Your task to perform on an android device: show emergency info Image 0: 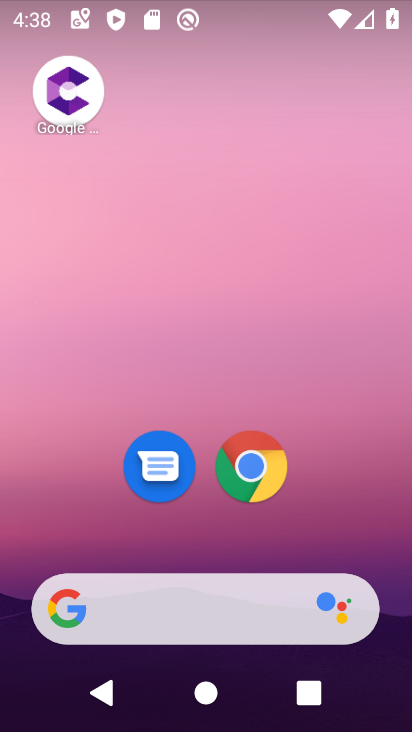
Step 0: drag from (403, 611) to (334, 116)
Your task to perform on an android device: show emergency info Image 1: 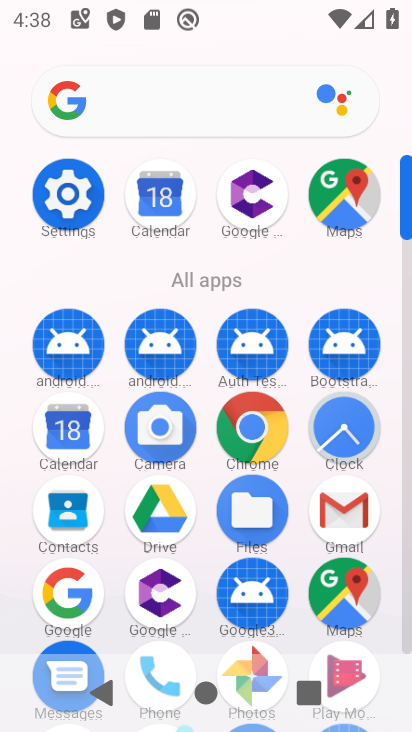
Step 1: click (407, 640)
Your task to perform on an android device: show emergency info Image 2: 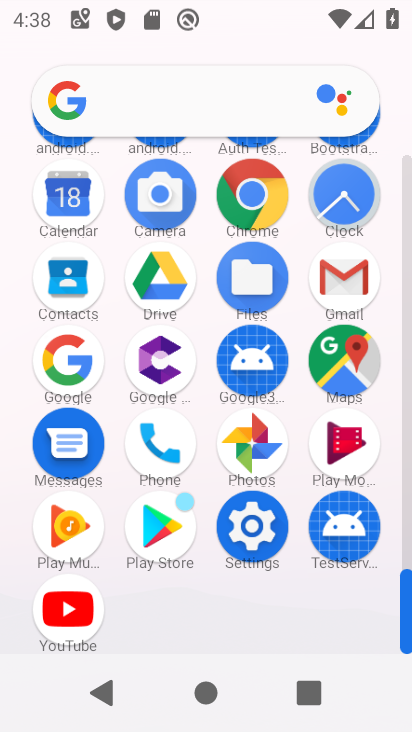
Step 2: click (252, 526)
Your task to perform on an android device: show emergency info Image 3: 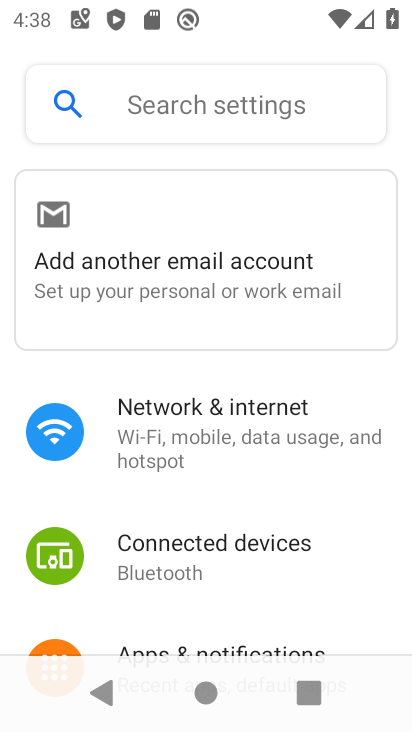
Step 3: drag from (351, 610) to (329, 82)
Your task to perform on an android device: show emergency info Image 4: 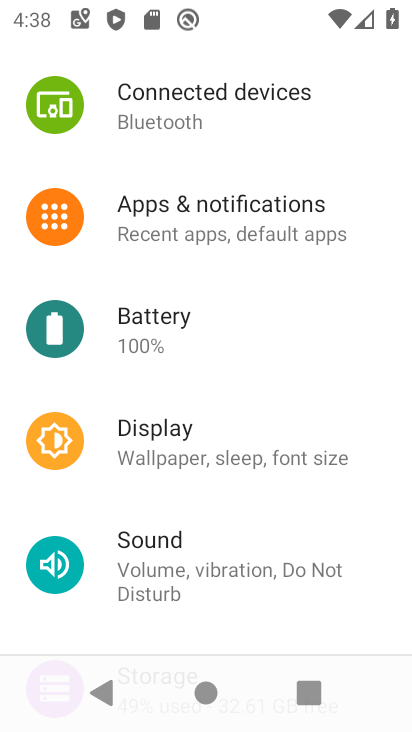
Step 4: drag from (359, 564) to (332, 88)
Your task to perform on an android device: show emergency info Image 5: 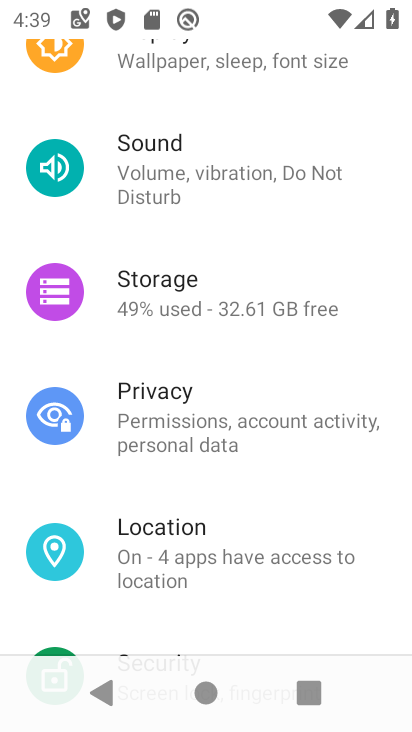
Step 5: drag from (361, 557) to (338, 133)
Your task to perform on an android device: show emergency info Image 6: 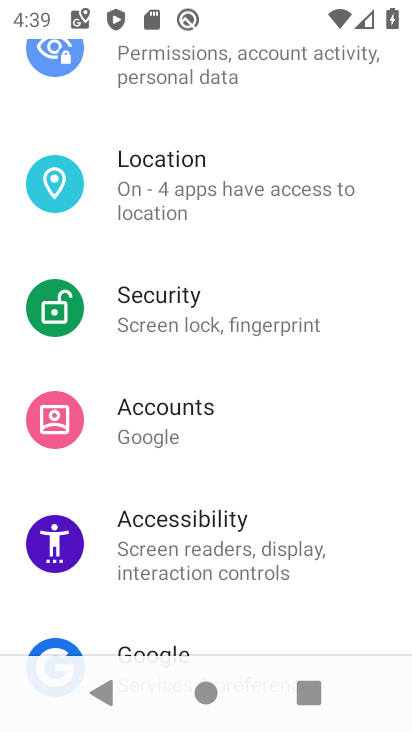
Step 6: drag from (339, 549) to (297, 254)
Your task to perform on an android device: show emergency info Image 7: 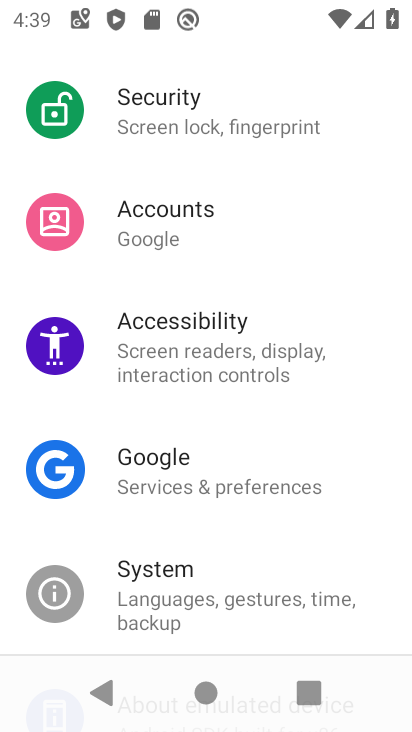
Step 7: drag from (266, 563) to (302, 256)
Your task to perform on an android device: show emergency info Image 8: 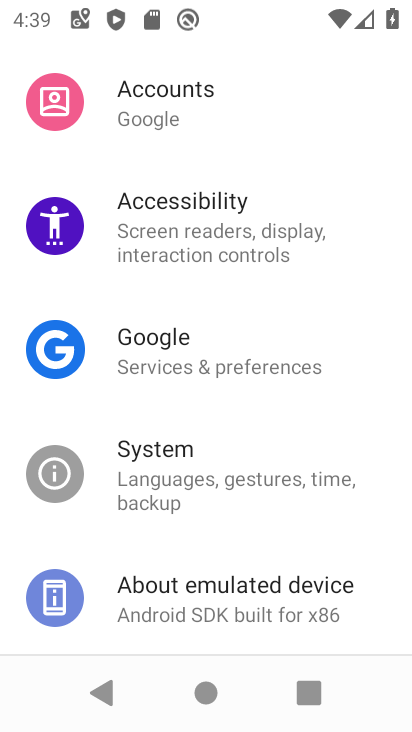
Step 8: click (211, 590)
Your task to perform on an android device: show emergency info Image 9: 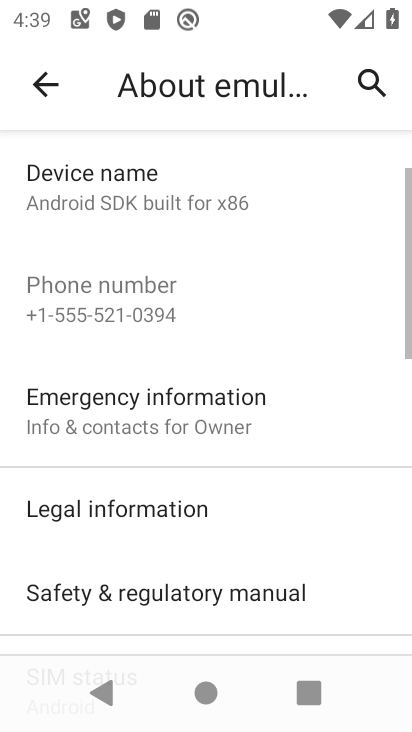
Step 9: click (124, 399)
Your task to perform on an android device: show emergency info Image 10: 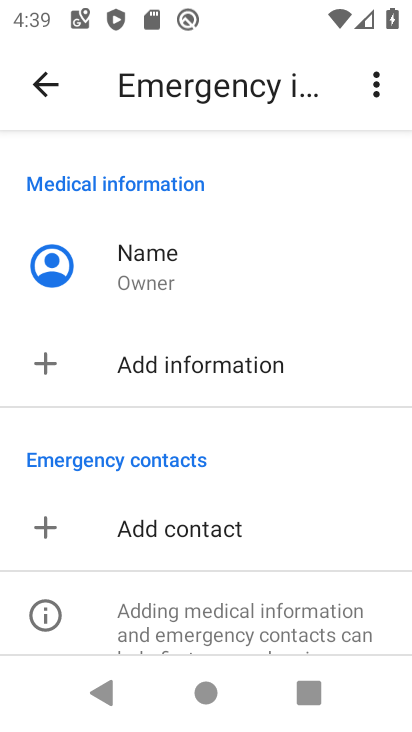
Step 10: task complete